Your task to perform on an android device: Open location settings Image 0: 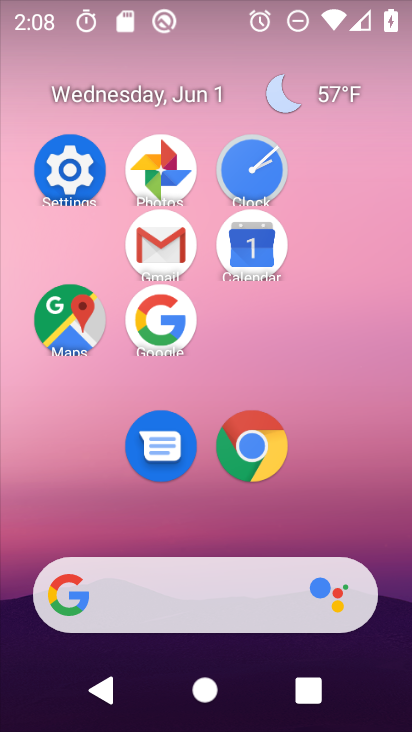
Step 0: click (54, 171)
Your task to perform on an android device: Open location settings Image 1: 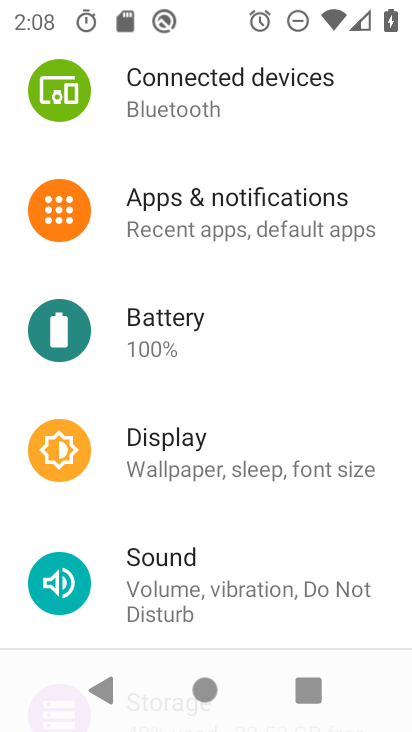
Step 1: drag from (285, 530) to (254, 227)
Your task to perform on an android device: Open location settings Image 2: 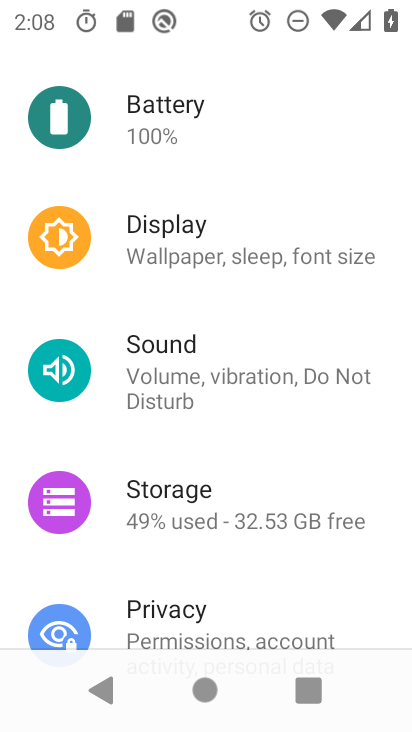
Step 2: drag from (287, 552) to (252, 175)
Your task to perform on an android device: Open location settings Image 3: 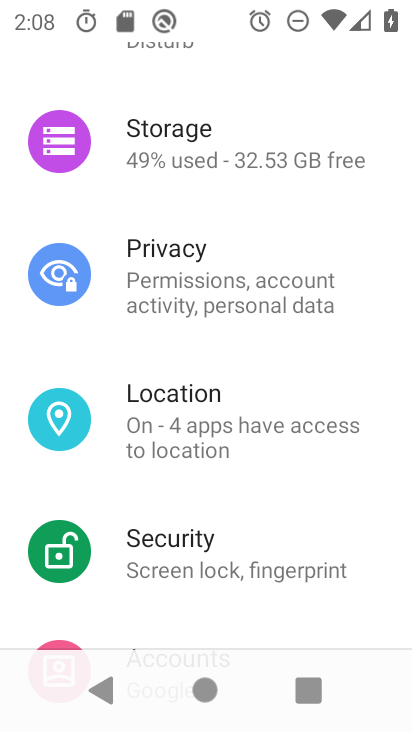
Step 3: click (249, 440)
Your task to perform on an android device: Open location settings Image 4: 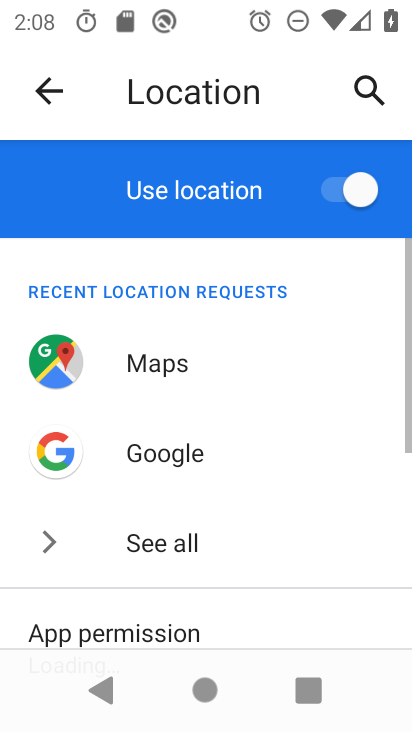
Step 4: task complete